Your task to perform on an android device: turn on priority inbox in the gmail app Image 0: 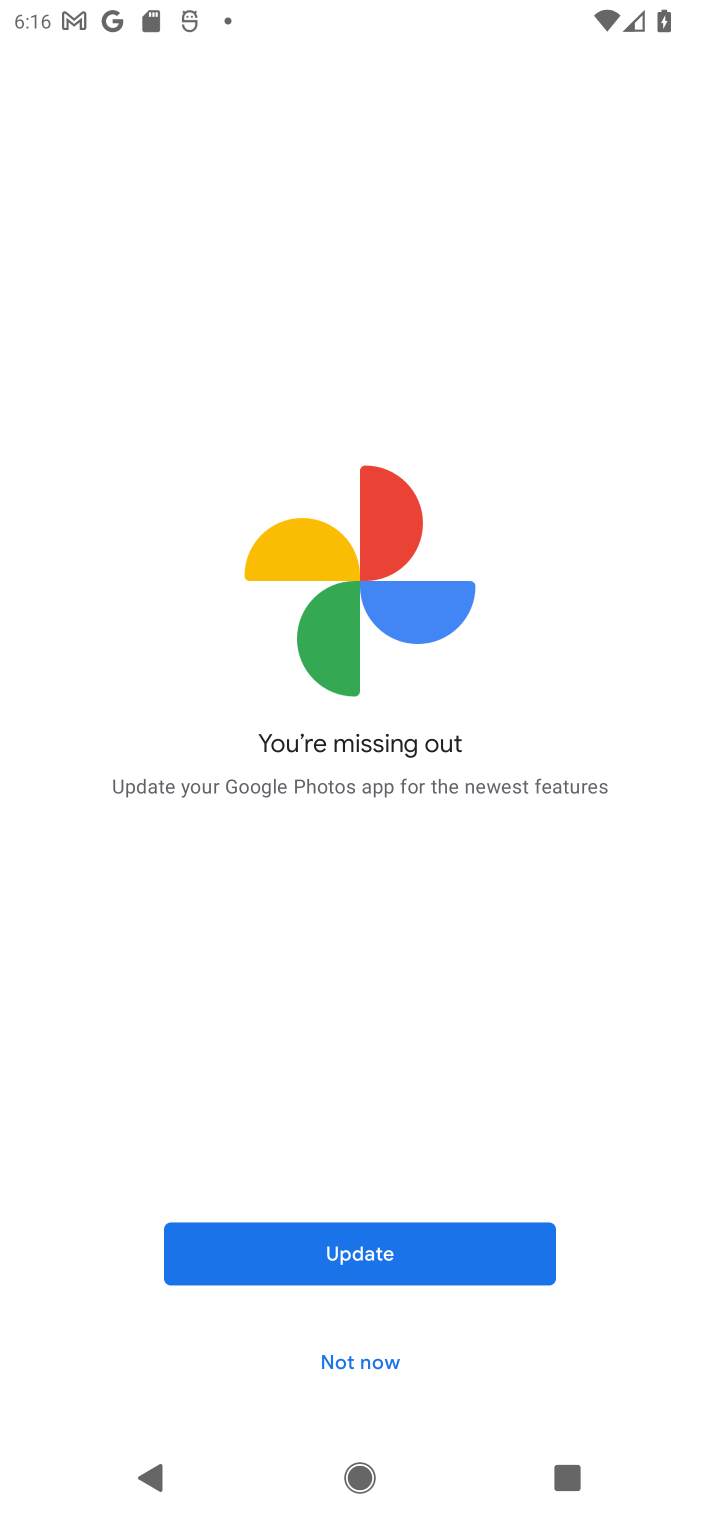
Step 0: press home button
Your task to perform on an android device: turn on priority inbox in the gmail app Image 1: 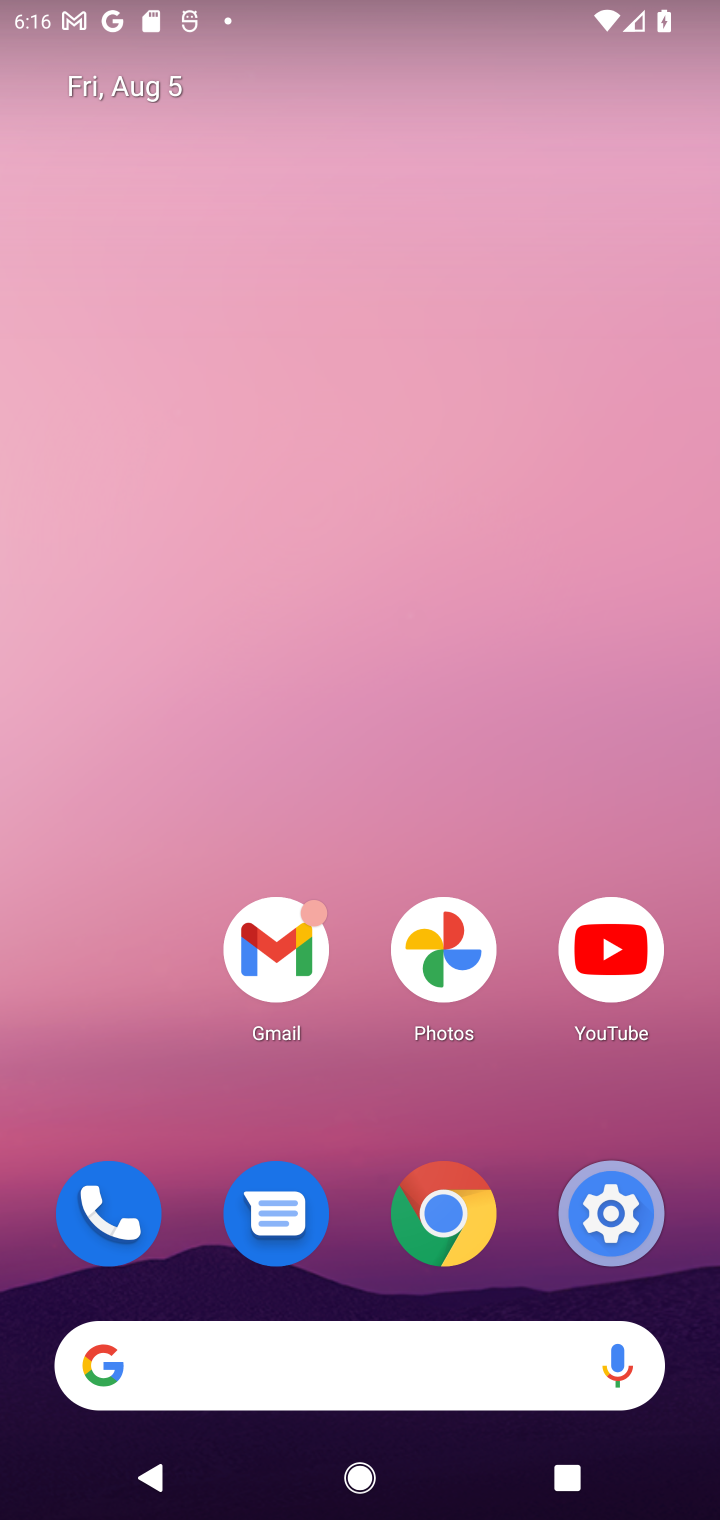
Step 1: click (377, 1291)
Your task to perform on an android device: turn on priority inbox in the gmail app Image 2: 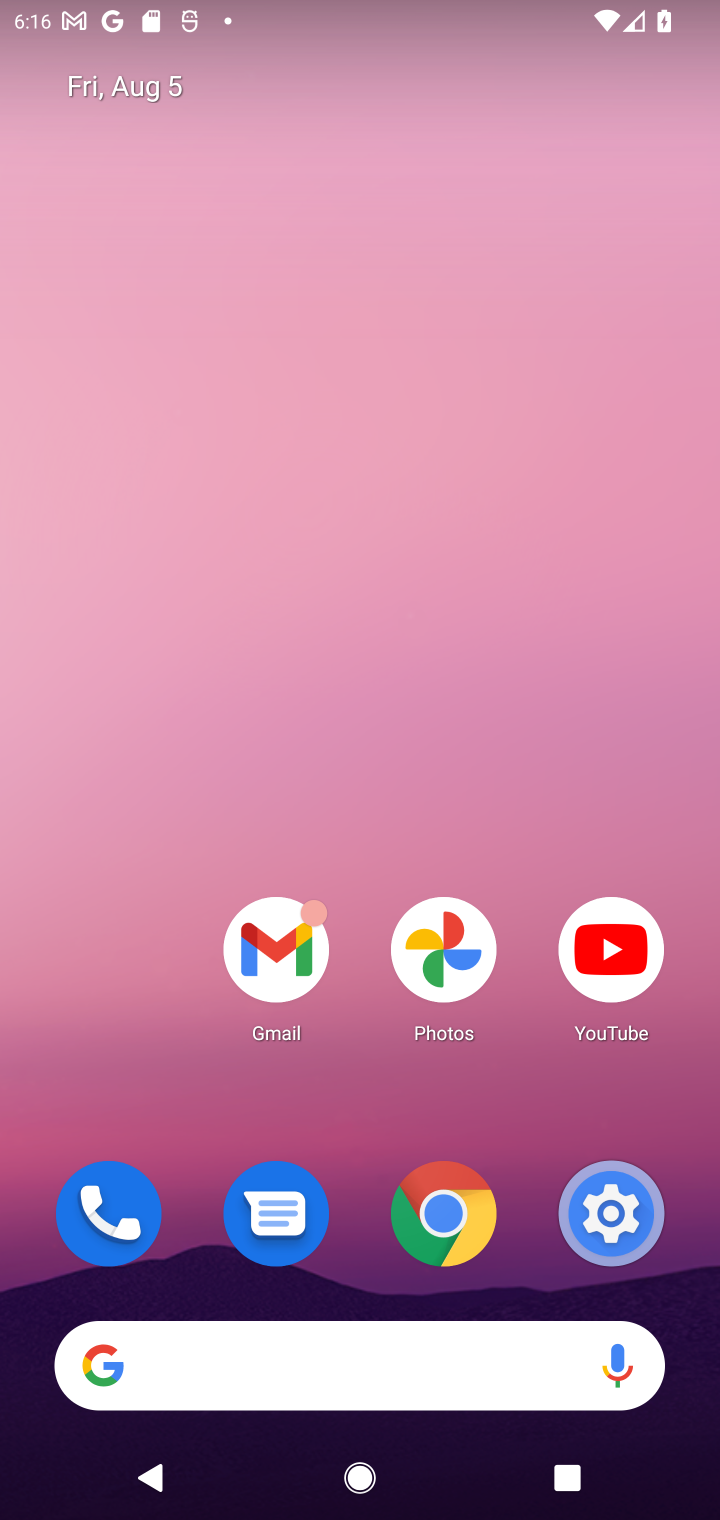
Step 2: click (377, 1291)
Your task to perform on an android device: turn on priority inbox in the gmail app Image 3: 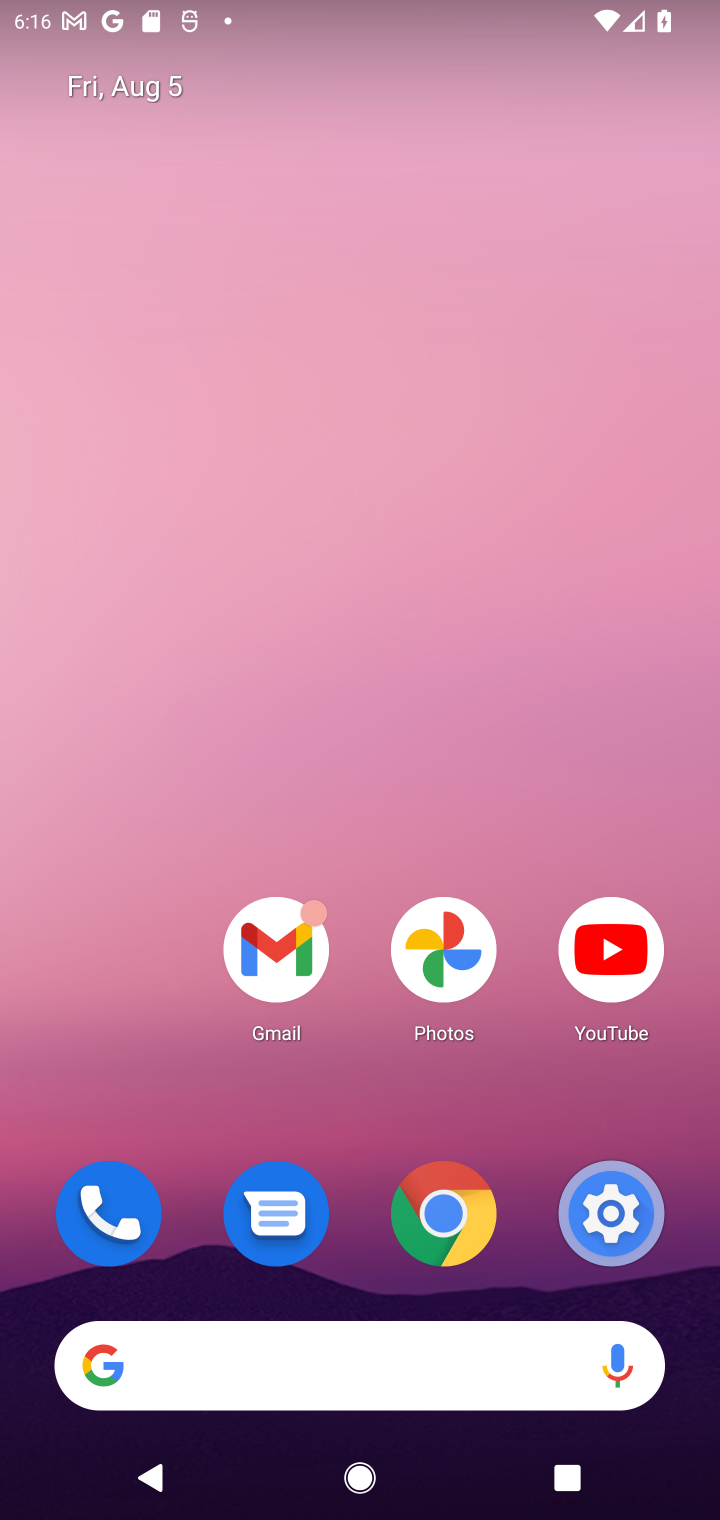
Step 3: click (289, 936)
Your task to perform on an android device: turn on priority inbox in the gmail app Image 4: 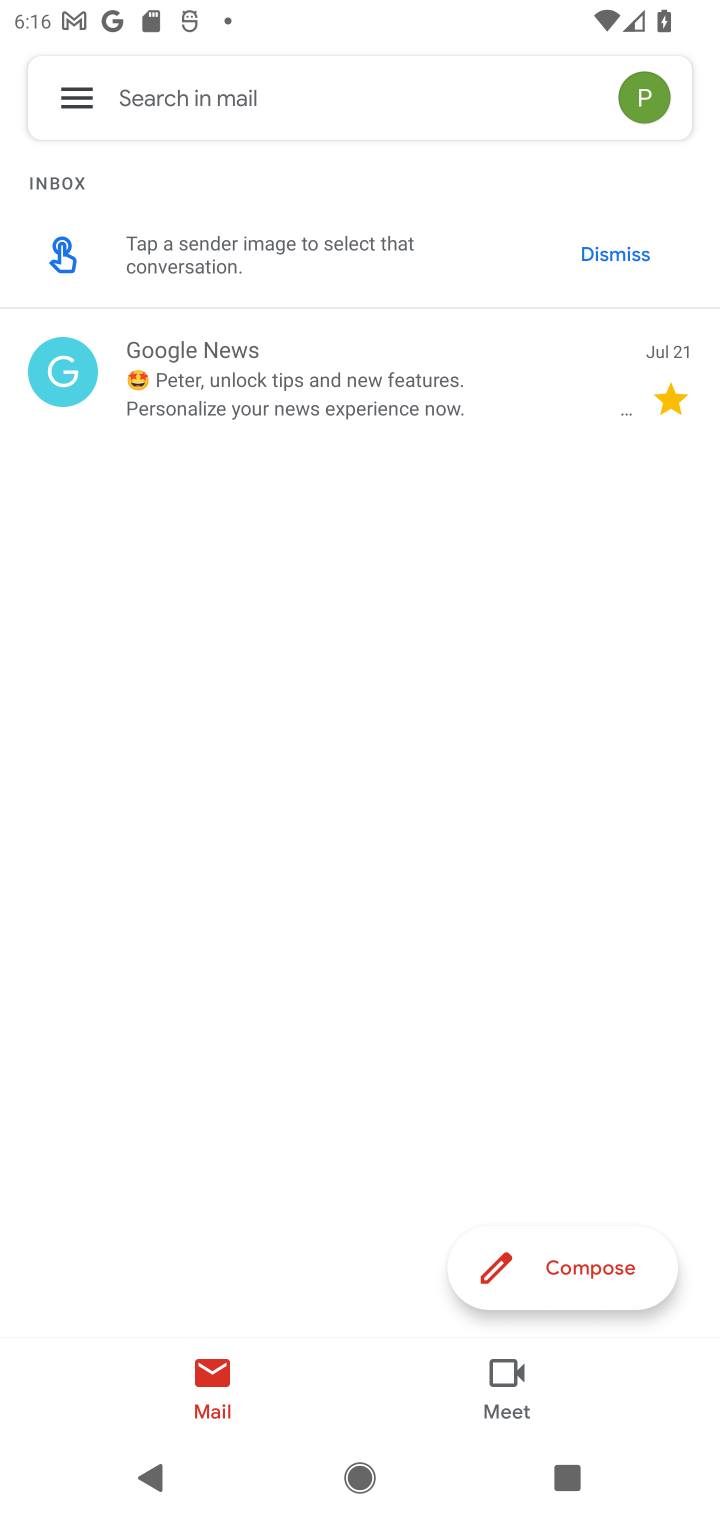
Step 4: click (60, 92)
Your task to perform on an android device: turn on priority inbox in the gmail app Image 5: 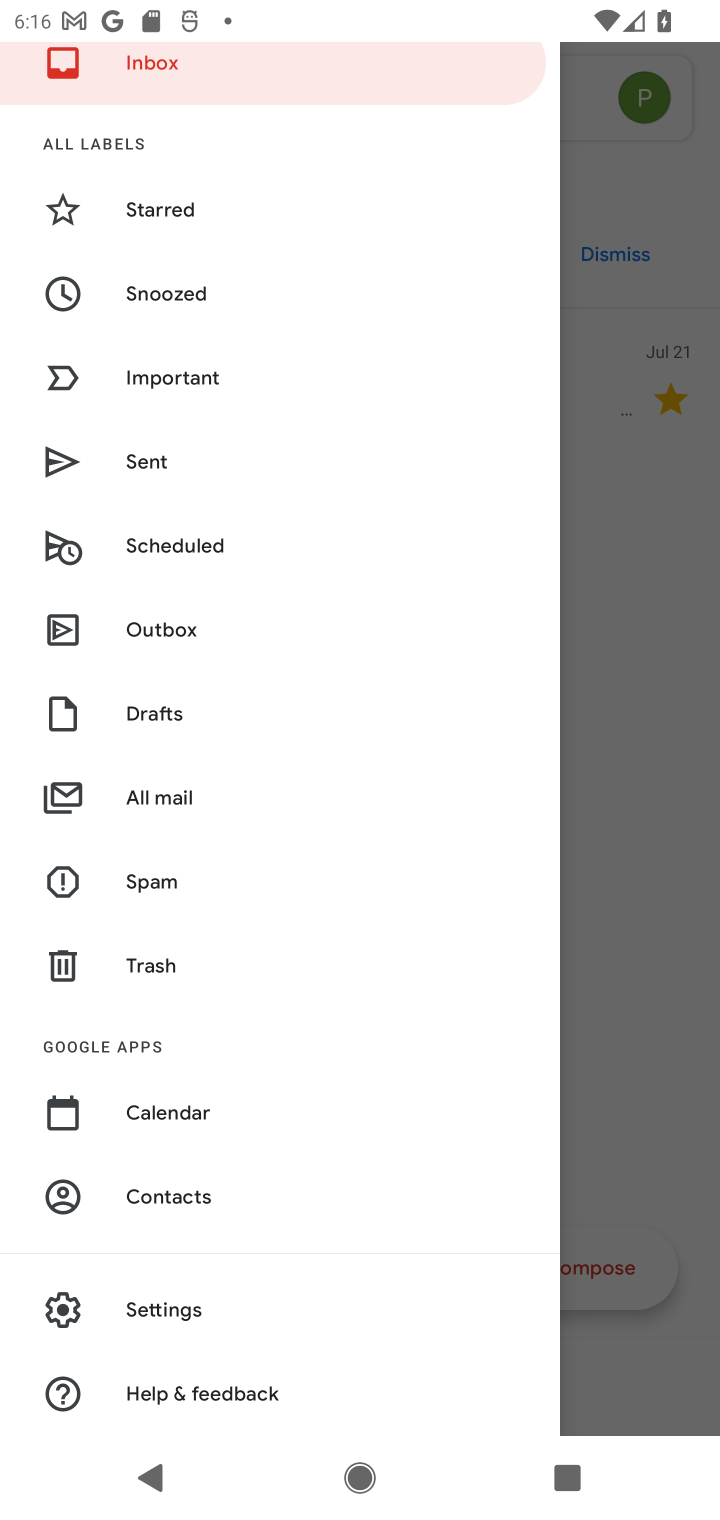
Step 5: click (153, 1277)
Your task to perform on an android device: turn on priority inbox in the gmail app Image 6: 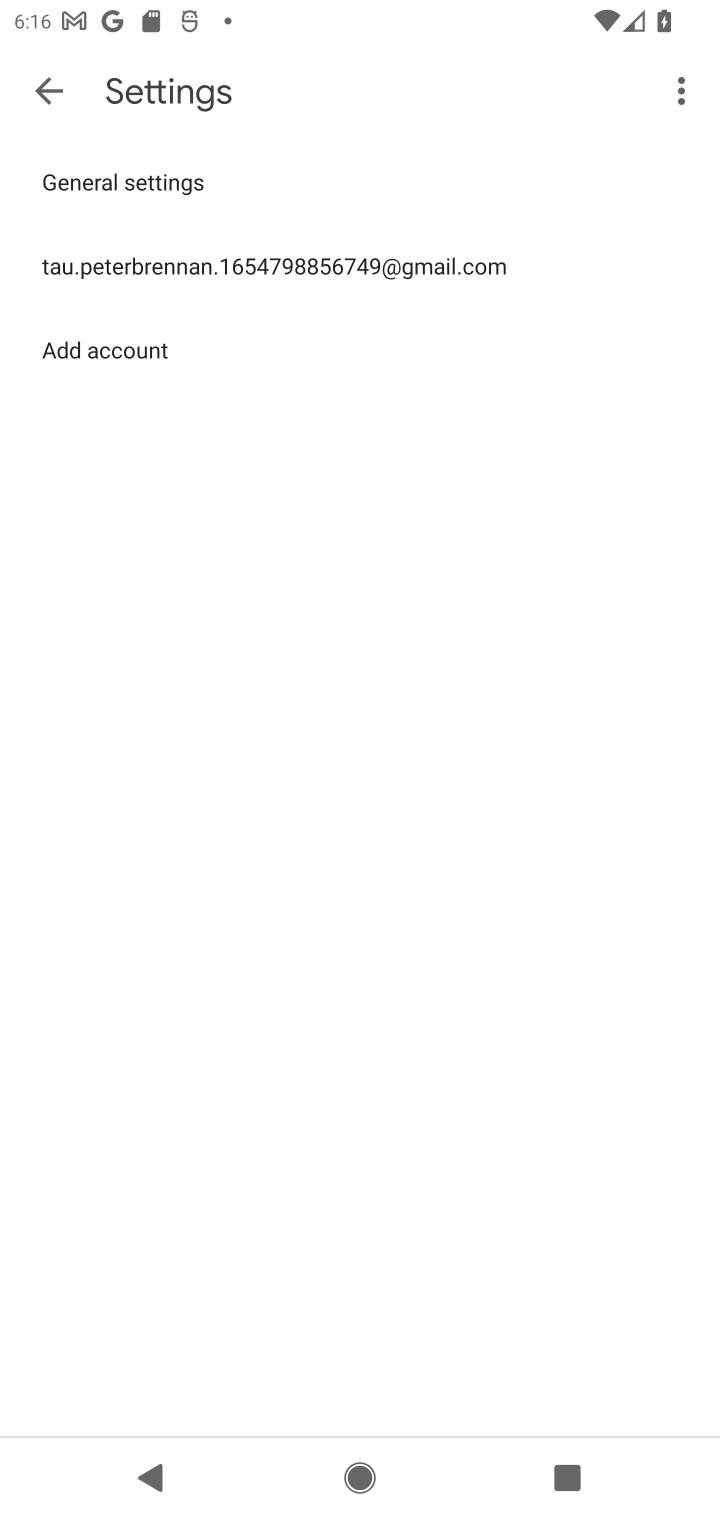
Step 6: click (290, 237)
Your task to perform on an android device: turn on priority inbox in the gmail app Image 7: 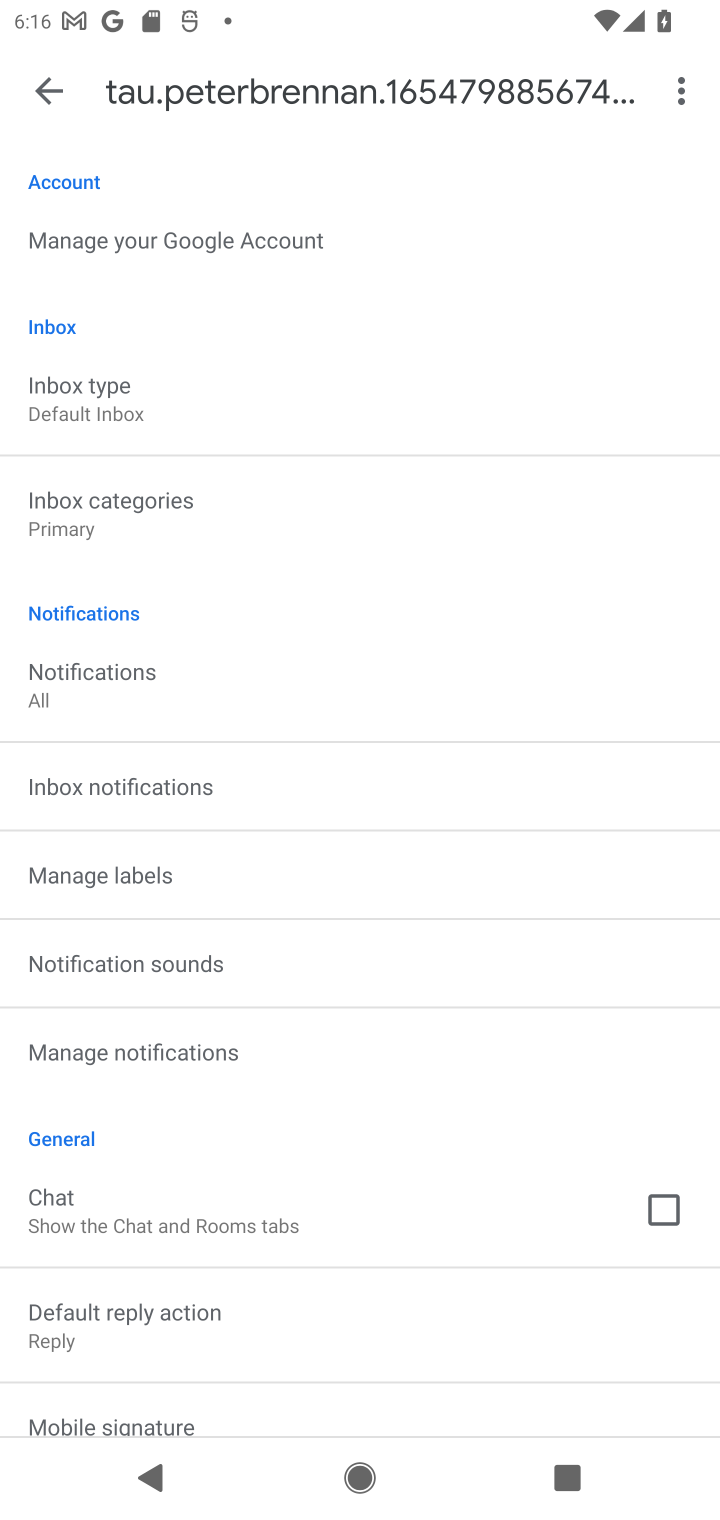
Step 7: task complete